Your task to perform on an android device: Go to Android settings Image 0: 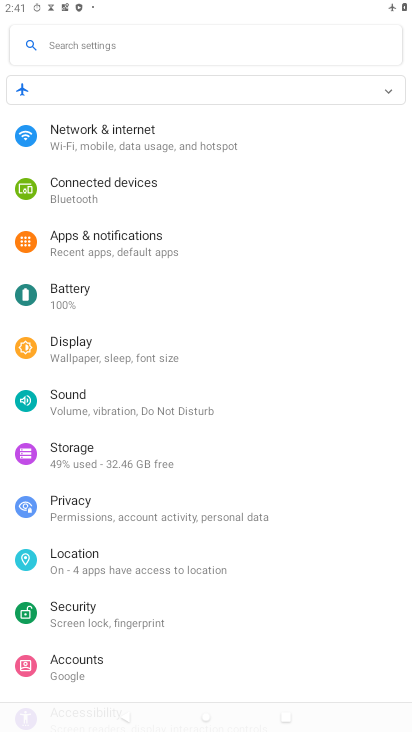
Step 0: drag from (149, 629) to (203, 88)
Your task to perform on an android device: Go to Android settings Image 1: 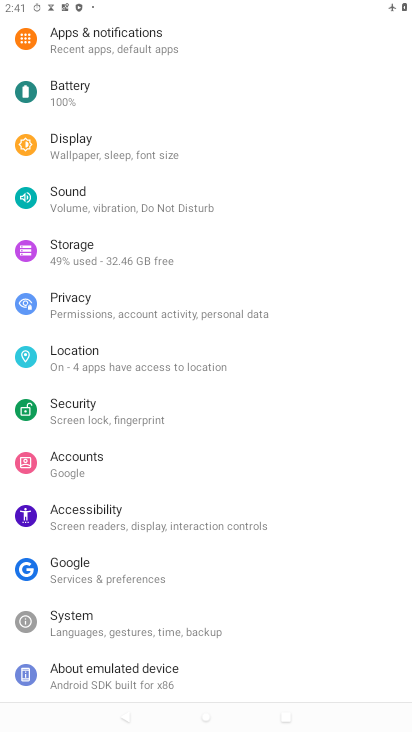
Step 1: click (131, 676)
Your task to perform on an android device: Go to Android settings Image 2: 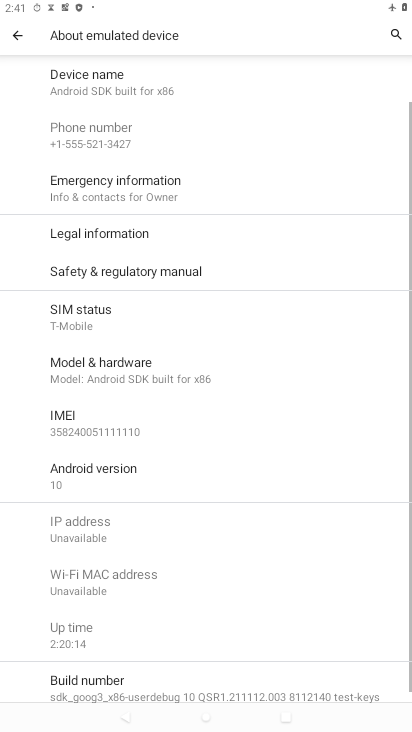
Step 2: click (112, 493)
Your task to perform on an android device: Go to Android settings Image 3: 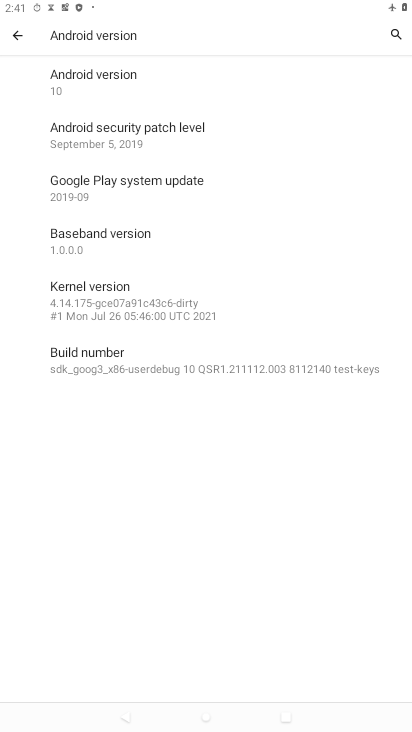
Step 3: task complete